Your task to perform on an android device: What's on the menu at Taco Bell? Image 0: 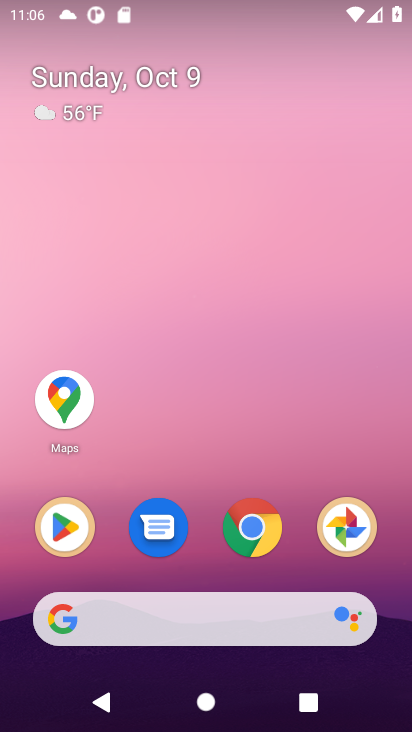
Step 0: click (232, 621)
Your task to perform on an android device: What's on the menu at Taco Bell? Image 1: 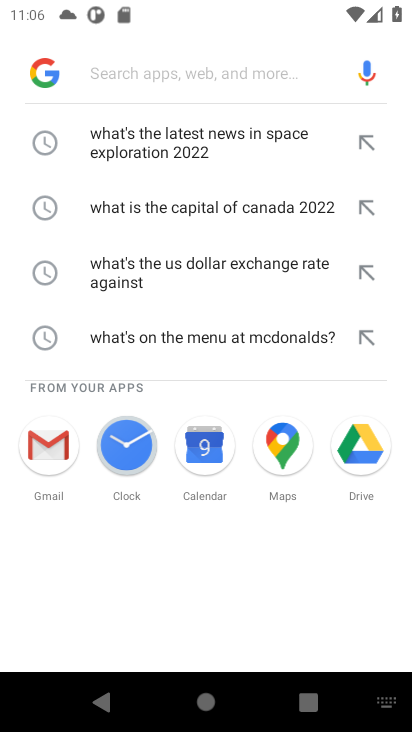
Step 1: click (176, 81)
Your task to perform on an android device: What's on the menu at Taco Bell? Image 2: 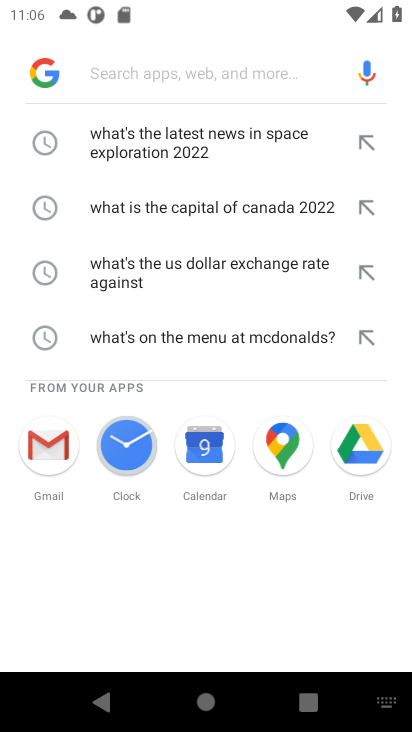
Step 2: type "What's on the menu at Taco Bell?"
Your task to perform on an android device: What's on the menu at Taco Bell? Image 3: 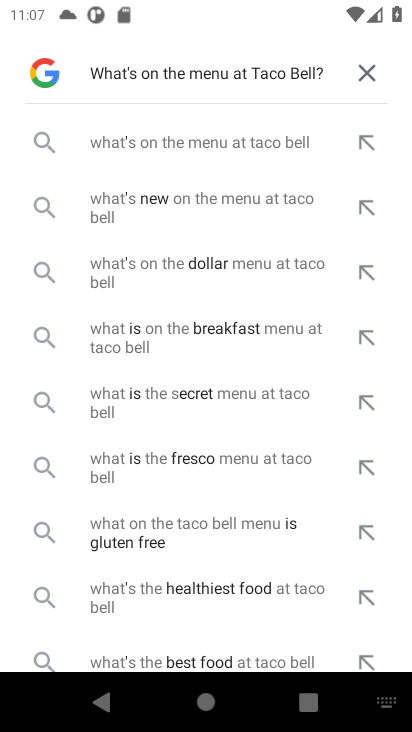
Step 3: click (155, 146)
Your task to perform on an android device: What's on the menu at Taco Bell? Image 4: 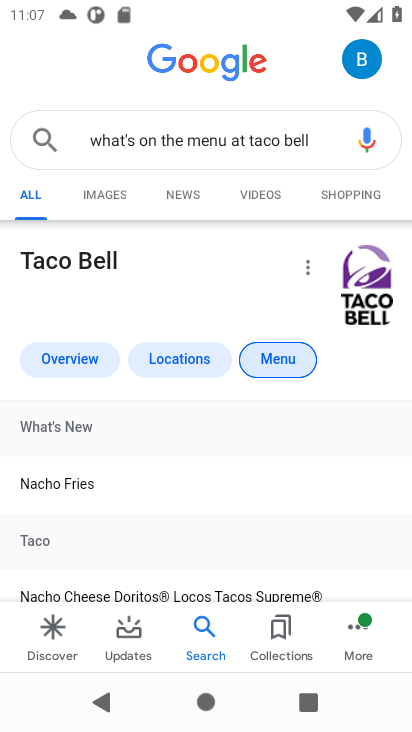
Step 4: task complete